Your task to perform on an android device: turn on showing notifications on the lock screen Image 0: 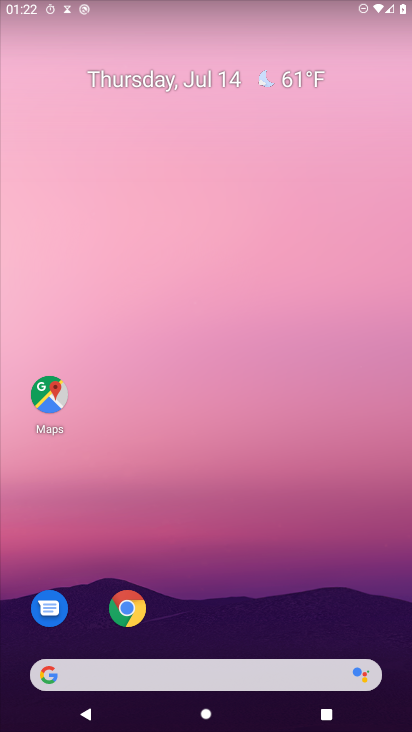
Step 0: press home button
Your task to perform on an android device: turn on showing notifications on the lock screen Image 1: 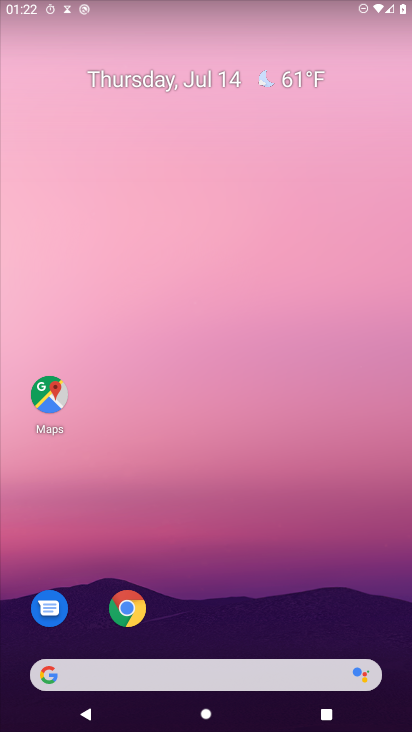
Step 1: drag from (319, 610) to (303, 6)
Your task to perform on an android device: turn on showing notifications on the lock screen Image 2: 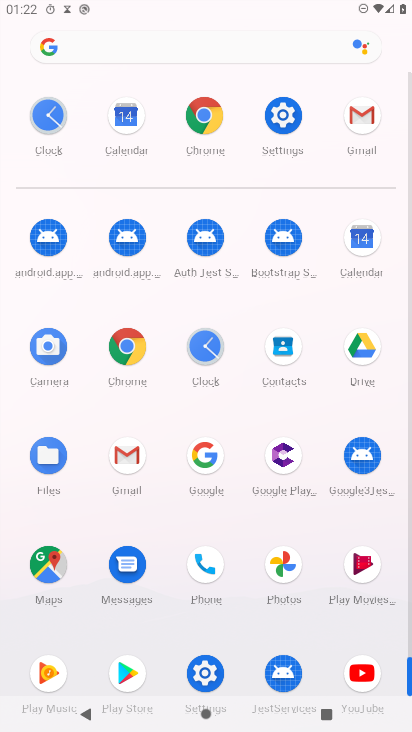
Step 2: click (272, 117)
Your task to perform on an android device: turn on showing notifications on the lock screen Image 3: 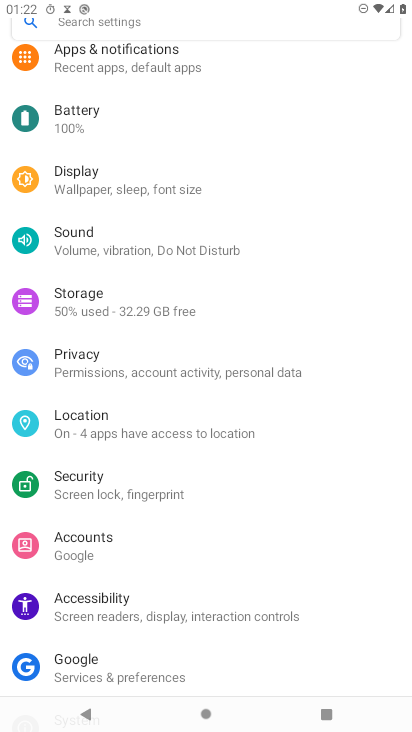
Step 3: click (103, 63)
Your task to perform on an android device: turn on showing notifications on the lock screen Image 4: 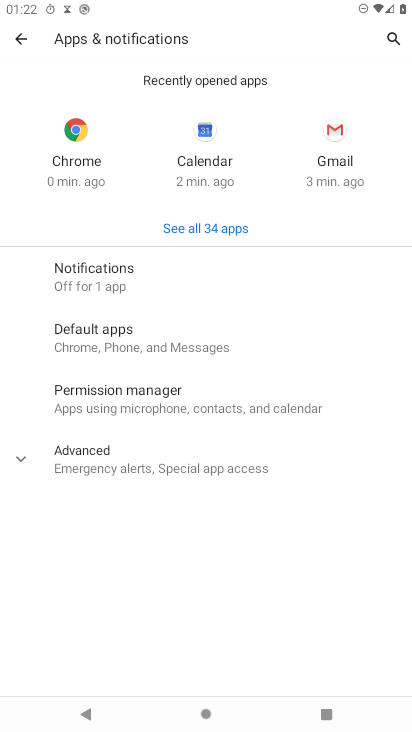
Step 4: click (93, 272)
Your task to perform on an android device: turn on showing notifications on the lock screen Image 5: 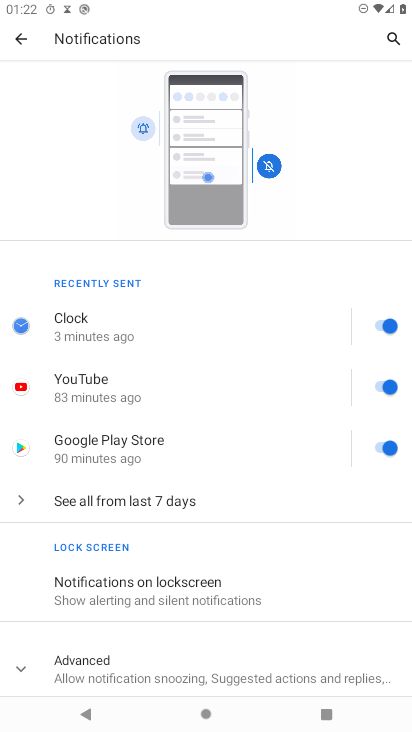
Step 5: click (110, 598)
Your task to perform on an android device: turn on showing notifications on the lock screen Image 6: 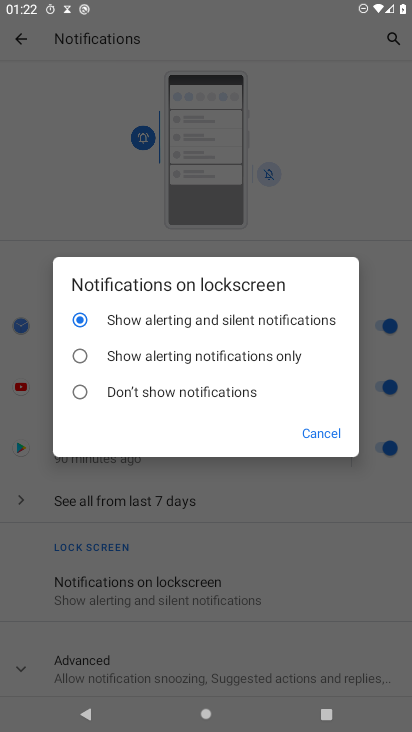
Step 6: task complete